Your task to perform on an android device: Go to accessibility settings Image 0: 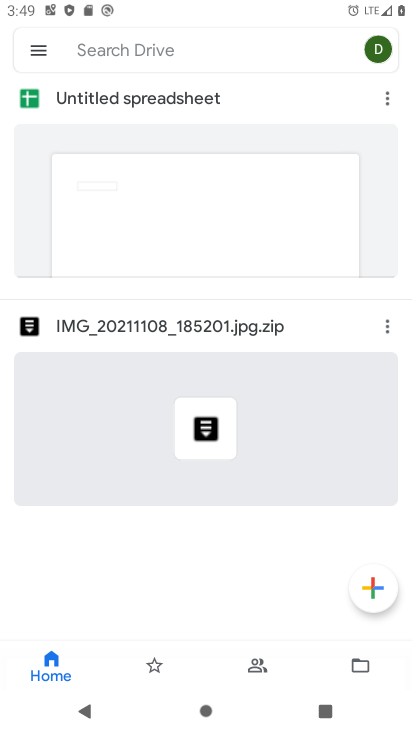
Step 0: press home button
Your task to perform on an android device: Go to accessibility settings Image 1: 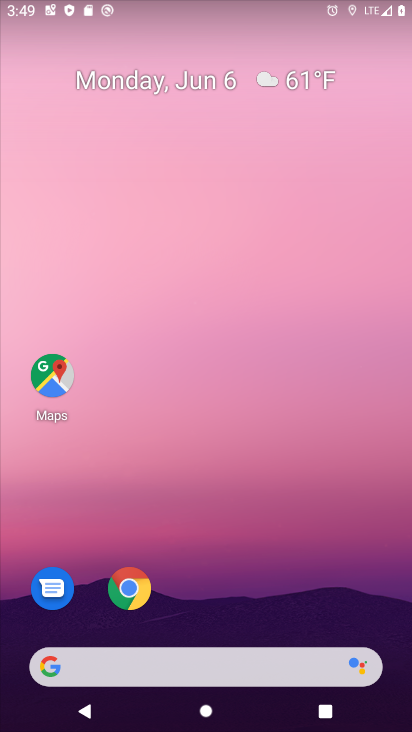
Step 1: drag from (199, 291) to (197, 161)
Your task to perform on an android device: Go to accessibility settings Image 2: 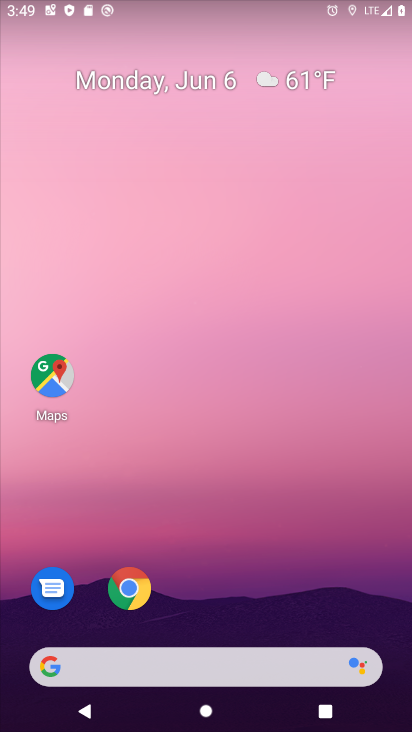
Step 2: drag from (238, 615) to (182, 71)
Your task to perform on an android device: Go to accessibility settings Image 3: 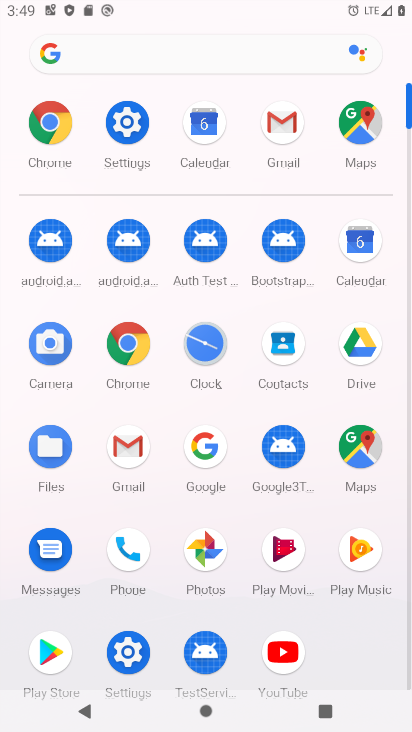
Step 3: click (141, 639)
Your task to perform on an android device: Go to accessibility settings Image 4: 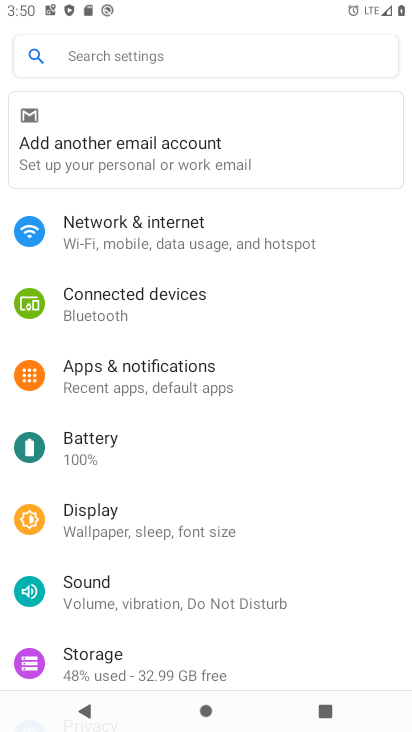
Step 4: drag from (234, 299) to (226, 247)
Your task to perform on an android device: Go to accessibility settings Image 5: 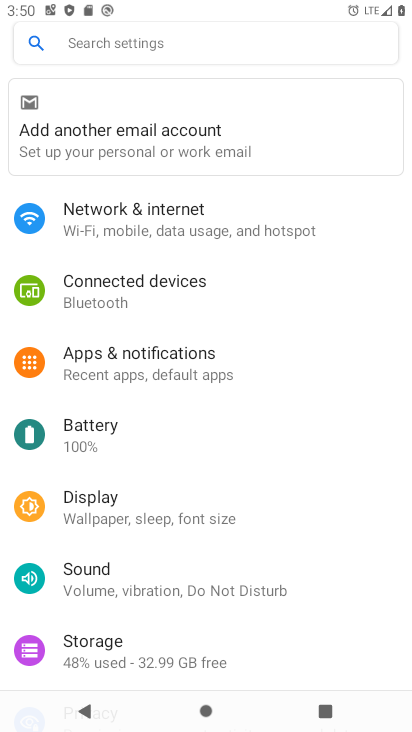
Step 5: drag from (165, 622) to (173, 306)
Your task to perform on an android device: Go to accessibility settings Image 6: 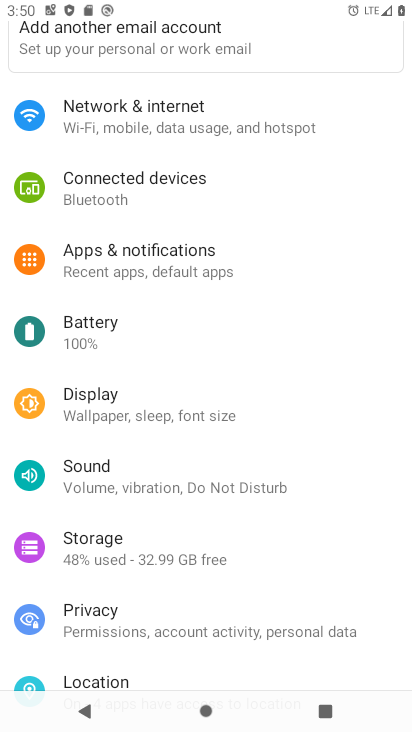
Step 6: drag from (237, 427) to (226, 276)
Your task to perform on an android device: Go to accessibility settings Image 7: 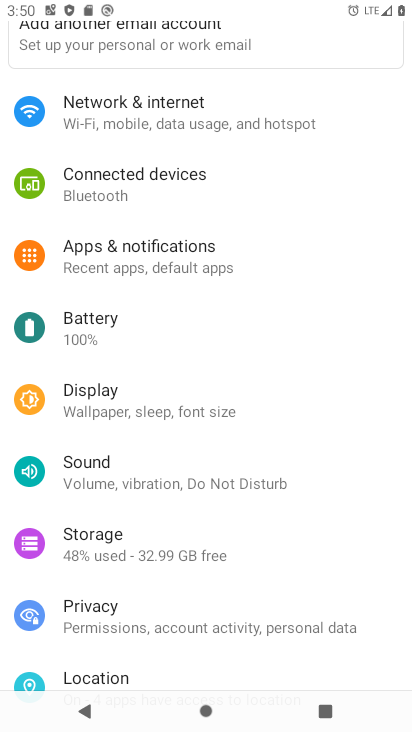
Step 7: drag from (284, 528) to (259, 269)
Your task to perform on an android device: Go to accessibility settings Image 8: 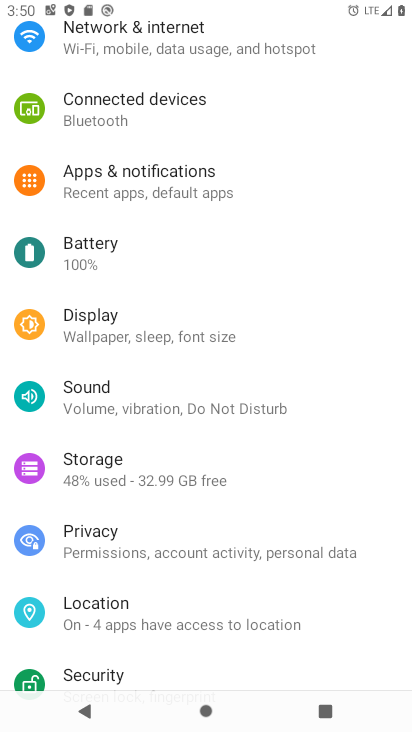
Step 8: drag from (201, 565) to (180, 197)
Your task to perform on an android device: Go to accessibility settings Image 9: 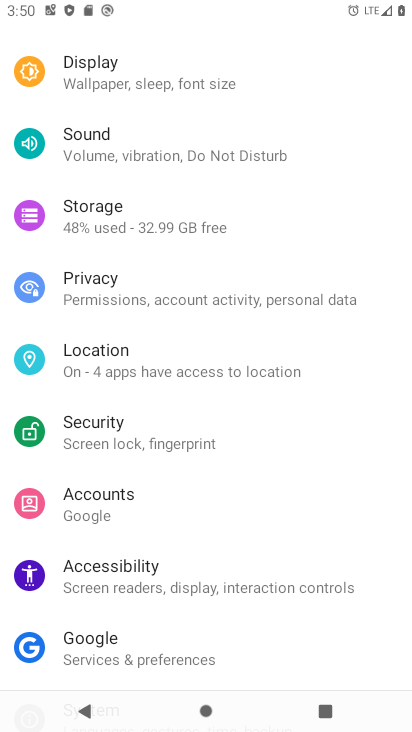
Step 9: click (247, 582)
Your task to perform on an android device: Go to accessibility settings Image 10: 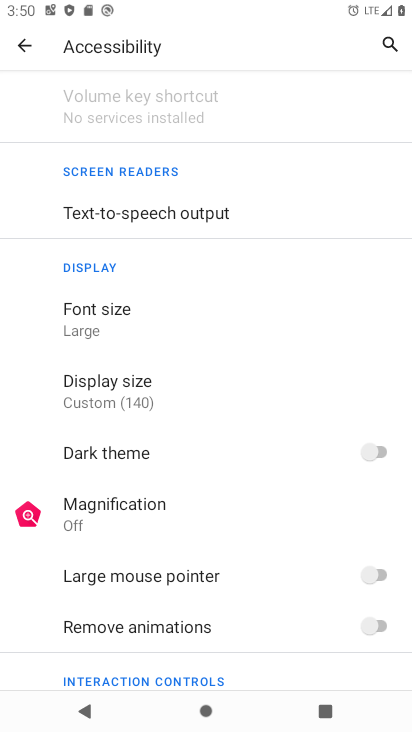
Step 10: task complete